Your task to perform on an android device: Turn on the flashlight Image 0: 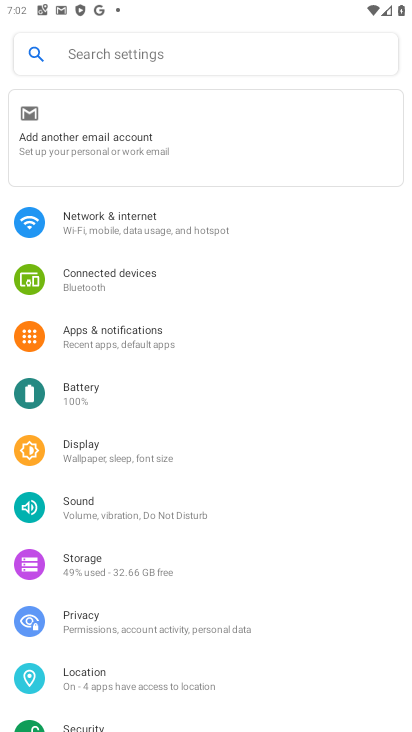
Step 0: press home button
Your task to perform on an android device: Turn on the flashlight Image 1: 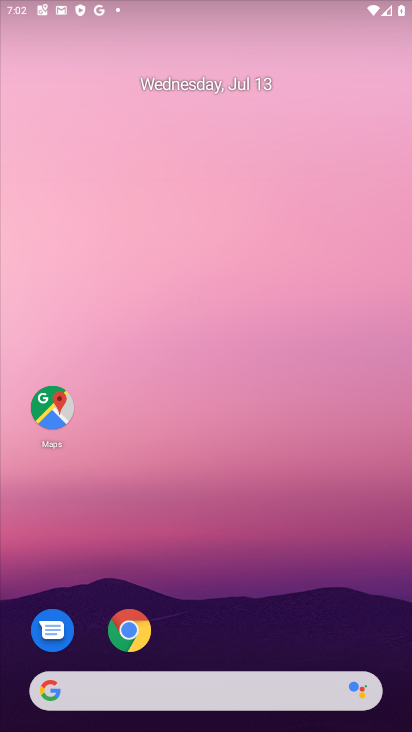
Step 1: drag from (375, 633) to (36, 237)
Your task to perform on an android device: Turn on the flashlight Image 2: 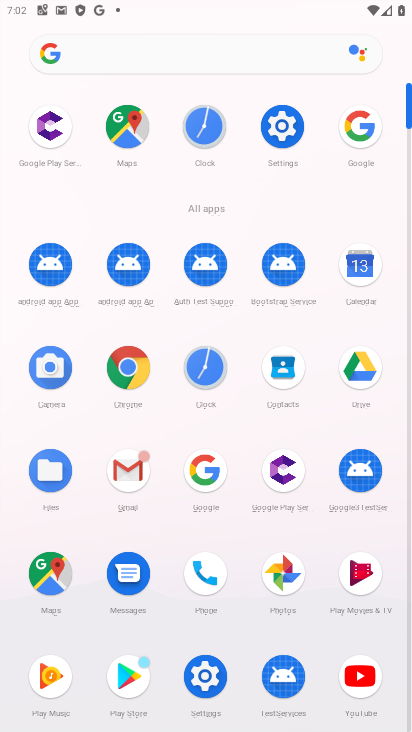
Step 2: click (290, 113)
Your task to perform on an android device: Turn on the flashlight Image 3: 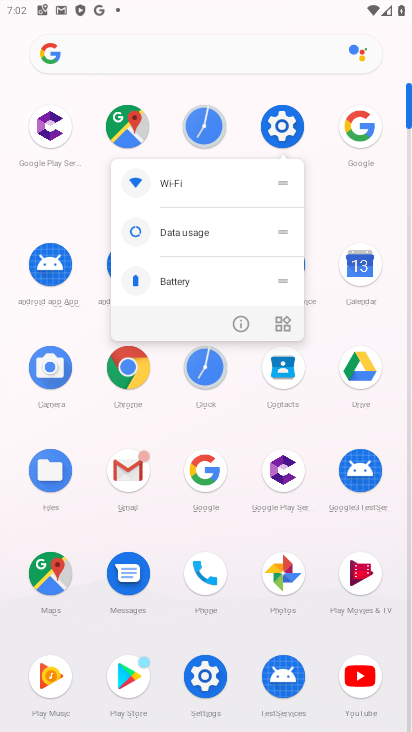
Step 3: click (289, 114)
Your task to perform on an android device: Turn on the flashlight Image 4: 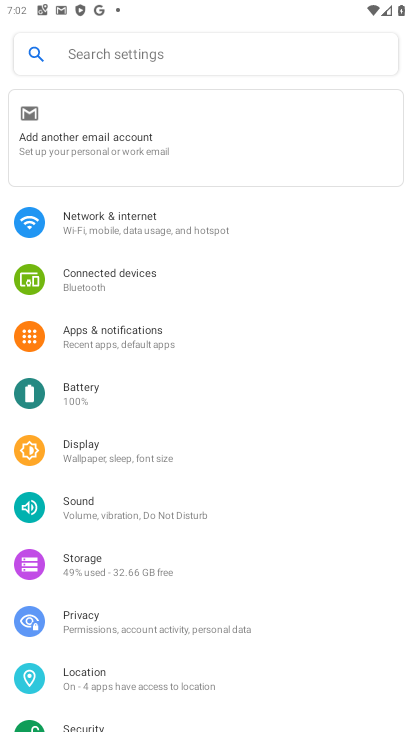
Step 4: task complete